Your task to perform on an android device: Go to Yahoo.com Image 0: 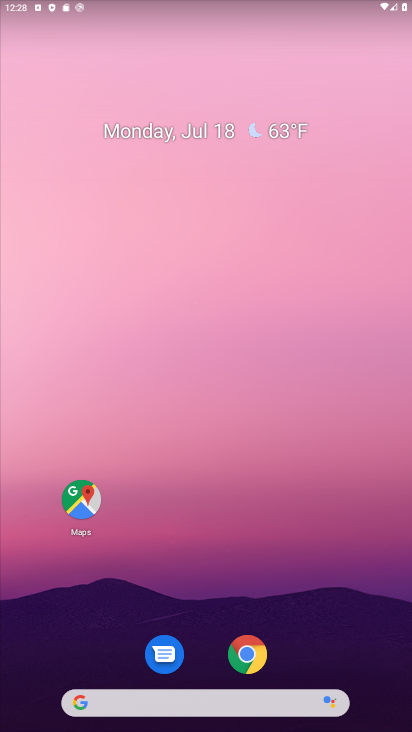
Step 0: click (241, 653)
Your task to perform on an android device: Go to Yahoo.com Image 1: 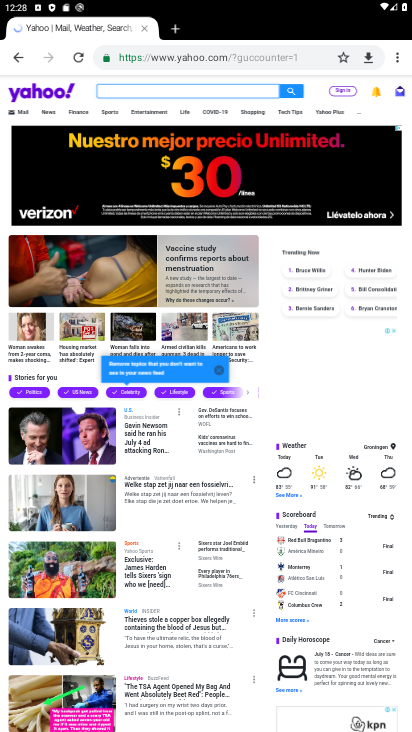
Step 1: task complete